Your task to perform on an android device: Open Wikipedia Image 0: 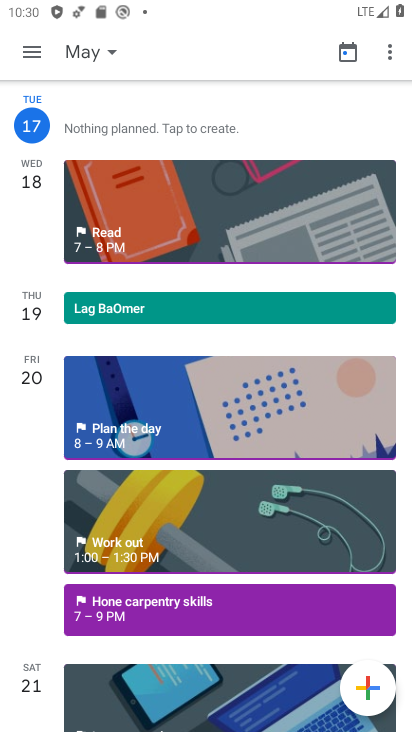
Step 0: press home button
Your task to perform on an android device: Open Wikipedia Image 1: 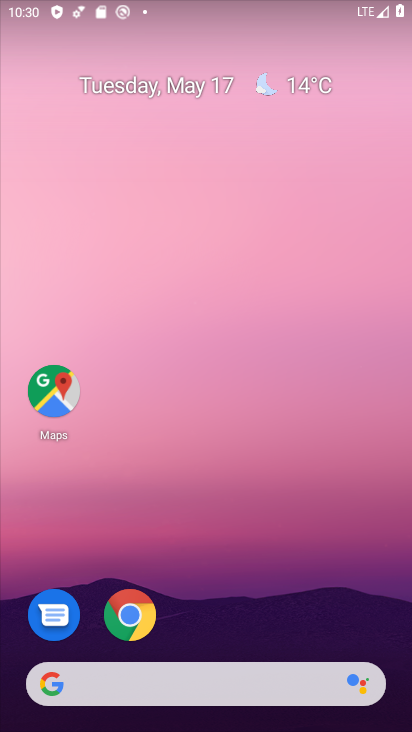
Step 1: click (125, 613)
Your task to perform on an android device: Open Wikipedia Image 2: 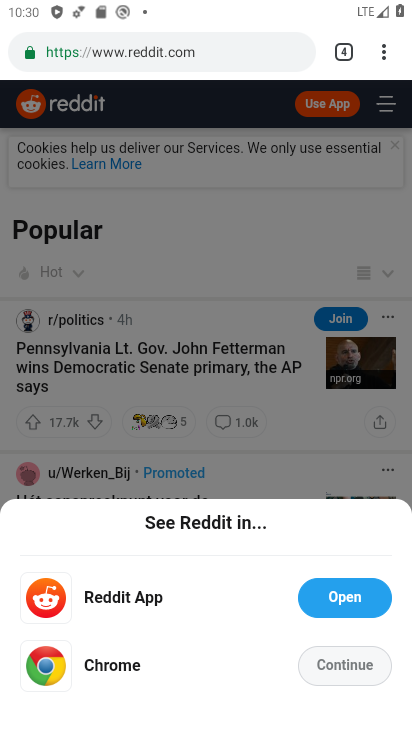
Step 2: drag from (386, 56) to (274, 107)
Your task to perform on an android device: Open Wikipedia Image 3: 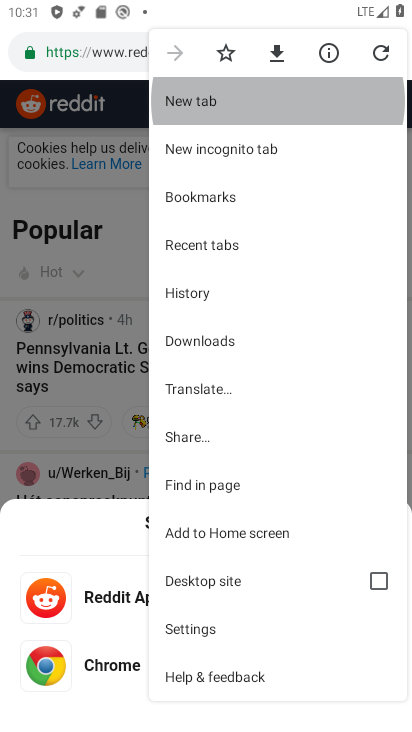
Step 3: click (274, 107)
Your task to perform on an android device: Open Wikipedia Image 4: 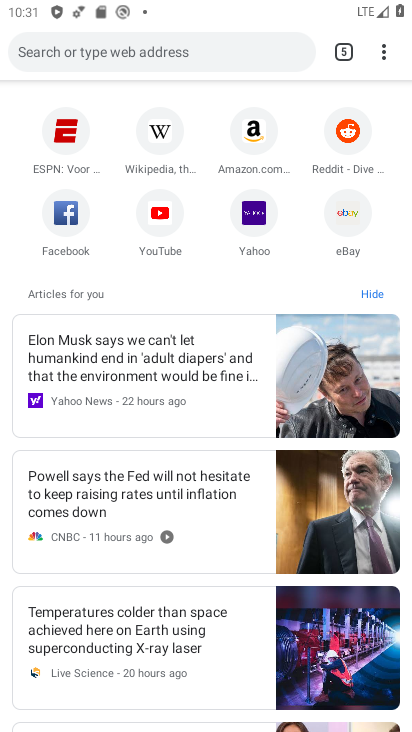
Step 4: click (162, 133)
Your task to perform on an android device: Open Wikipedia Image 5: 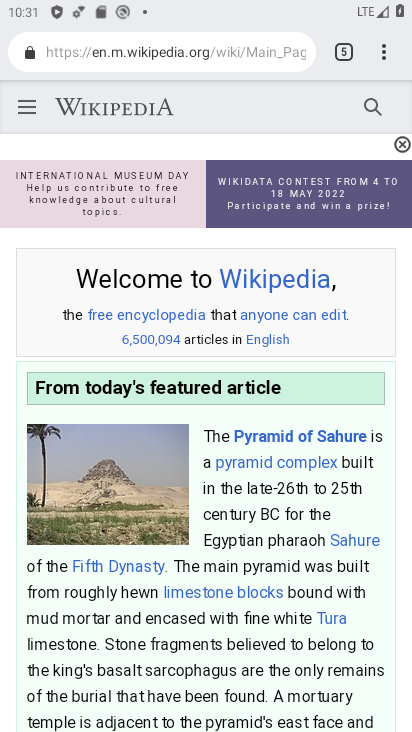
Step 5: task complete